Your task to perform on an android device: Open calendar and show me the fourth week of next month Image 0: 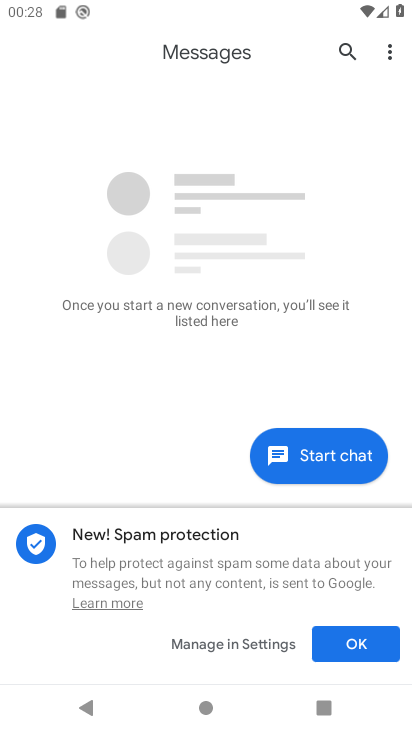
Step 0: click (235, 649)
Your task to perform on an android device: Open calendar and show me the fourth week of next month Image 1: 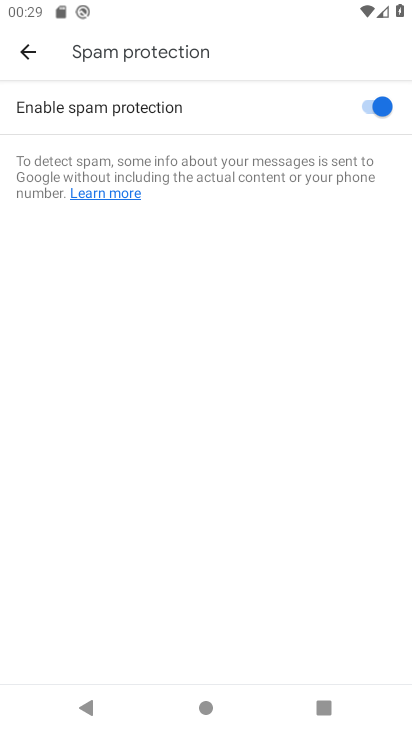
Step 1: drag from (194, 453) to (230, 134)
Your task to perform on an android device: Open calendar and show me the fourth week of next month Image 2: 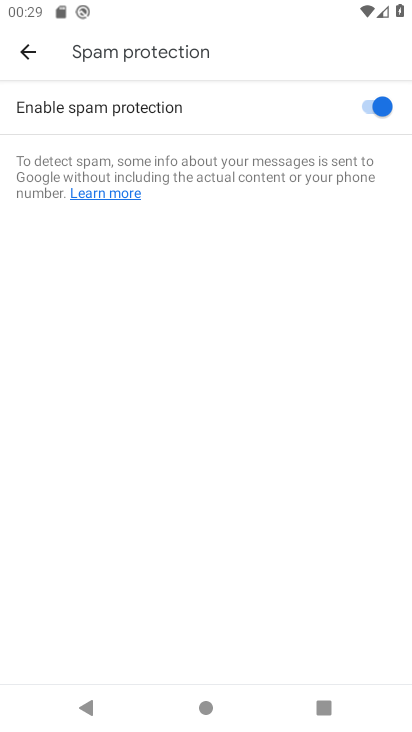
Step 2: drag from (250, 600) to (217, 177)
Your task to perform on an android device: Open calendar and show me the fourth week of next month Image 3: 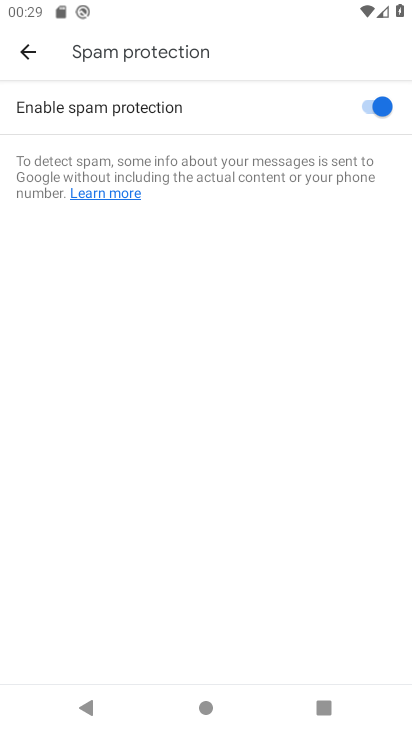
Step 3: drag from (204, 179) to (204, 634)
Your task to perform on an android device: Open calendar and show me the fourth week of next month Image 4: 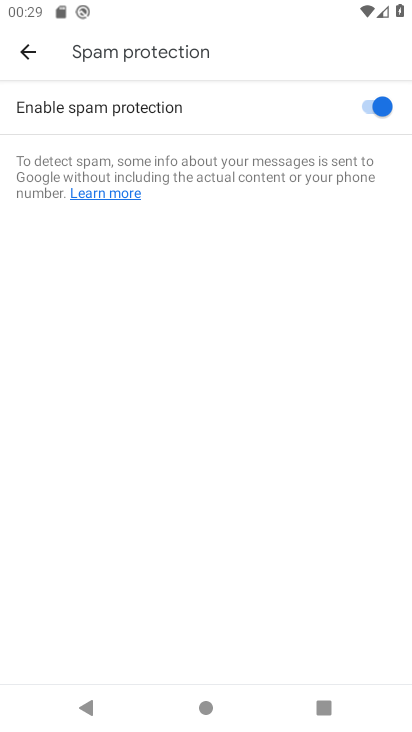
Step 4: drag from (74, 410) to (386, 503)
Your task to perform on an android device: Open calendar and show me the fourth week of next month Image 5: 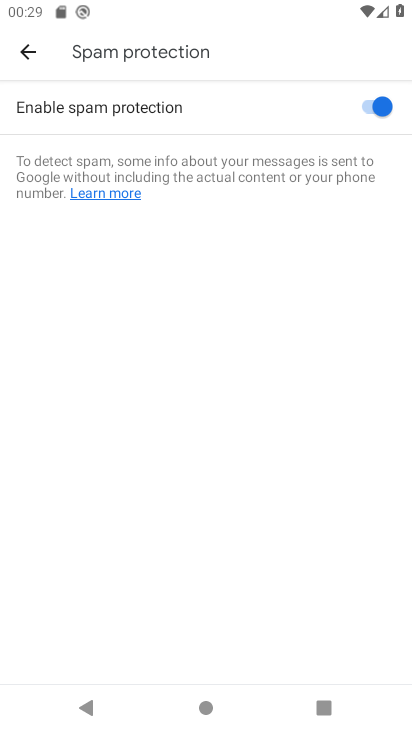
Step 5: drag from (262, 479) to (242, 247)
Your task to perform on an android device: Open calendar and show me the fourth week of next month Image 6: 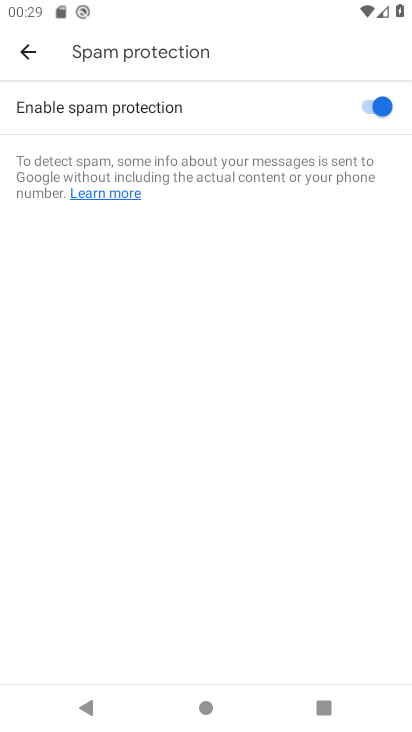
Step 6: drag from (223, 209) to (211, 538)
Your task to perform on an android device: Open calendar and show me the fourth week of next month Image 7: 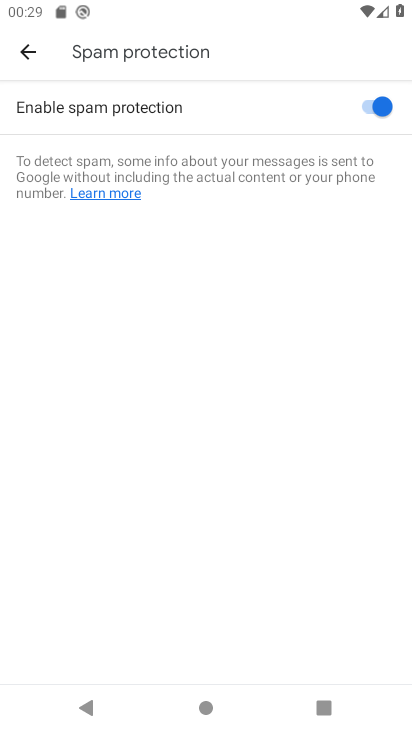
Step 7: drag from (208, 344) to (409, 564)
Your task to perform on an android device: Open calendar and show me the fourth week of next month Image 8: 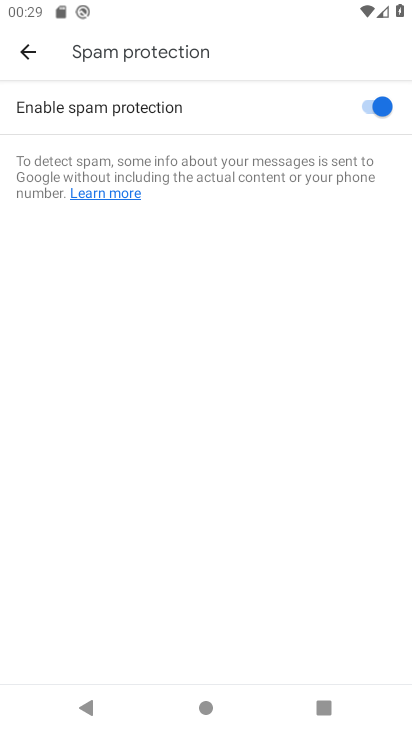
Step 8: drag from (91, 289) to (225, 565)
Your task to perform on an android device: Open calendar and show me the fourth week of next month Image 9: 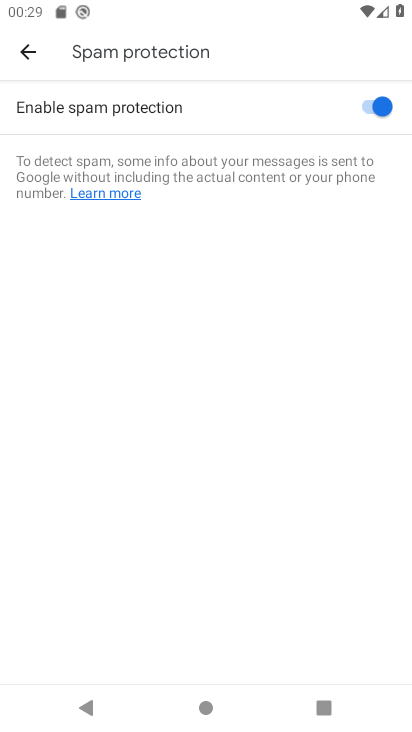
Step 9: drag from (303, 331) to (305, 116)
Your task to perform on an android device: Open calendar and show me the fourth week of next month Image 10: 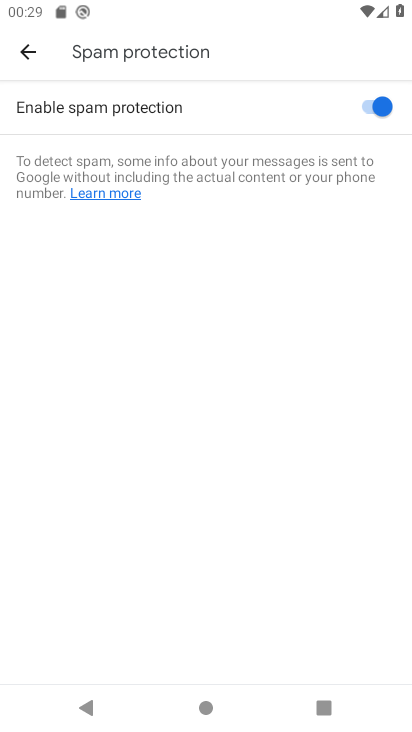
Step 10: press home button
Your task to perform on an android device: Open calendar and show me the fourth week of next month Image 11: 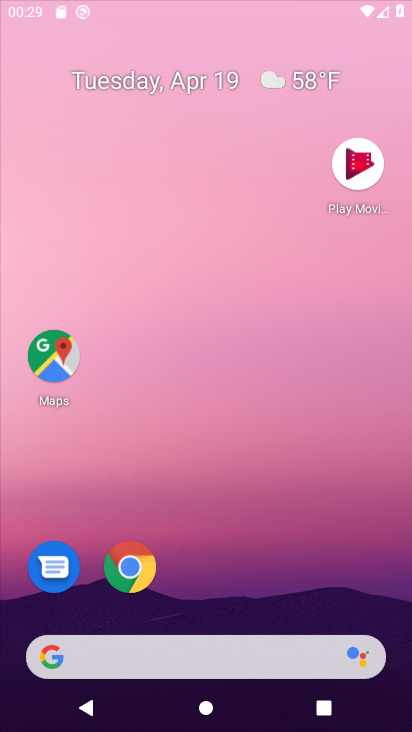
Step 11: drag from (209, 586) to (229, 115)
Your task to perform on an android device: Open calendar and show me the fourth week of next month Image 12: 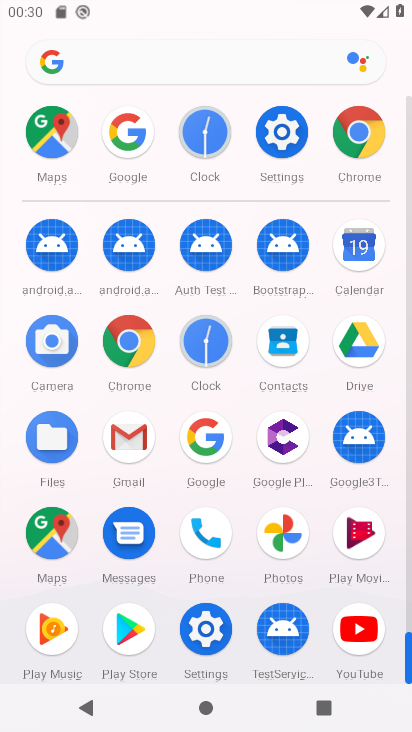
Step 12: click (358, 243)
Your task to perform on an android device: Open calendar and show me the fourth week of next month Image 13: 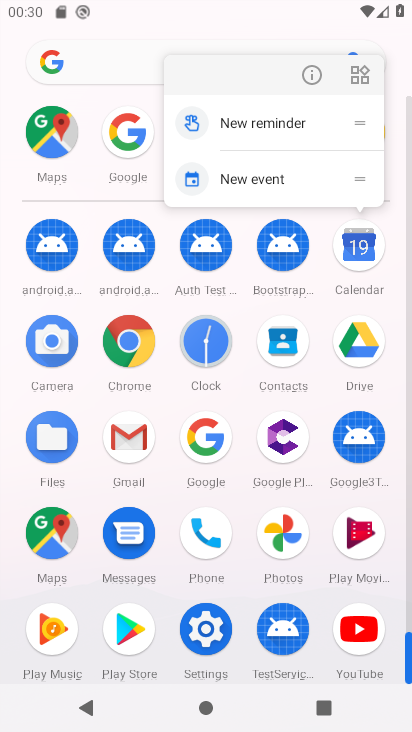
Step 13: click (299, 76)
Your task to perform on an android device: Open calendar and show me the fourth week of next month Image 14: 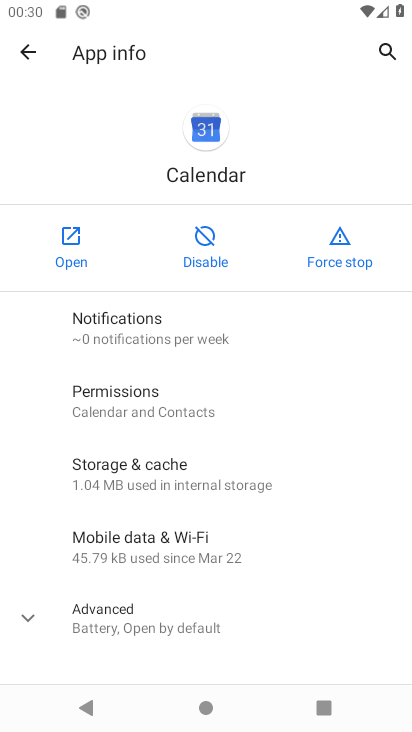
Step 14: click (50, 245)
Your task to perform on an android device: Open calendar and show me the fourth week of next month Image 15: 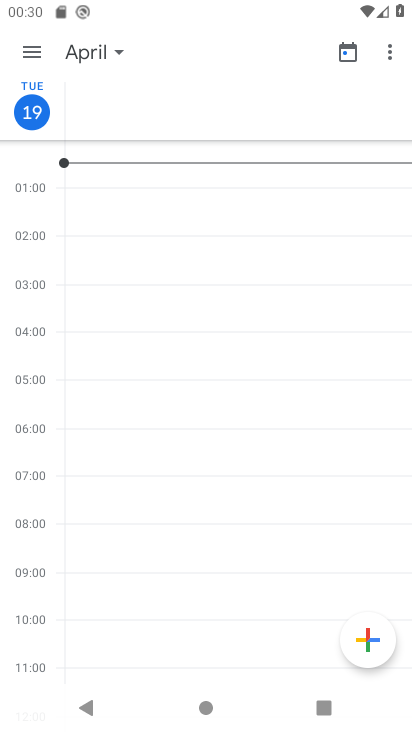
Step 15: click (93, 58)
Your task to perform on an android device: Open calendar and show me the fourth week of next month Image 16: 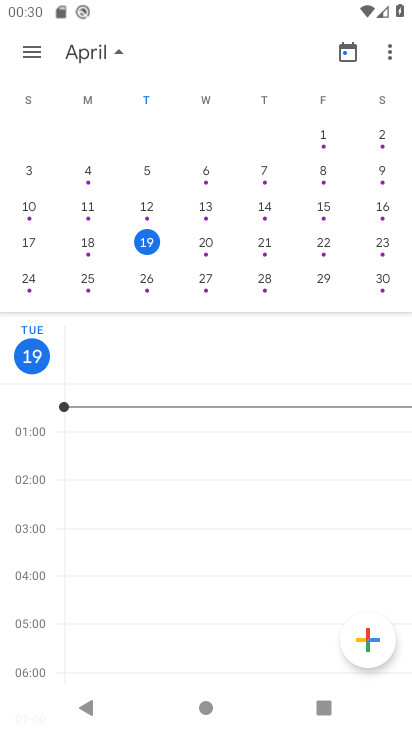
Step 16: drag from (361, 237) to (16, 287)
Your task to perform on an android device: Open calendar and show me the fourth week of next month Image 17: 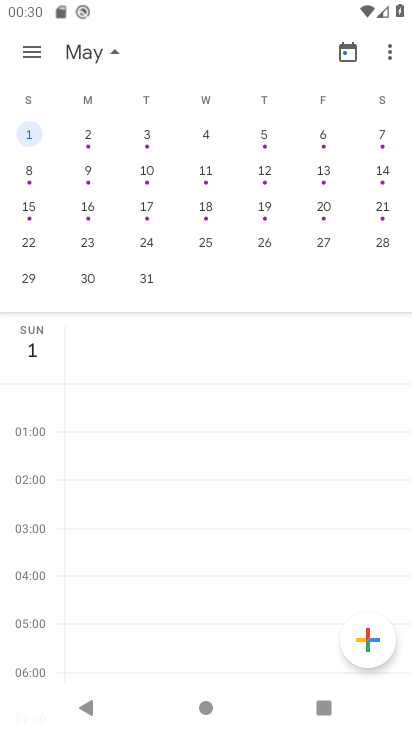
Step 17: click (261, 248)
Your task to perform on an android device: Open calendar and show me the fourth week of next month Image 18: 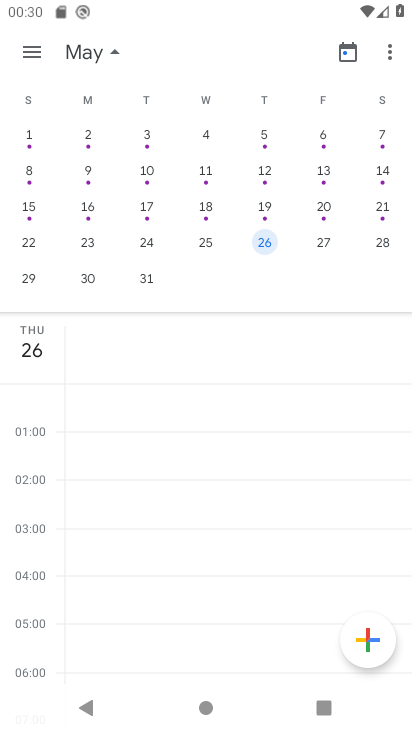
Step 18: task complete